Your task to perform on an android device: Go to Yahoo.com Image 0: 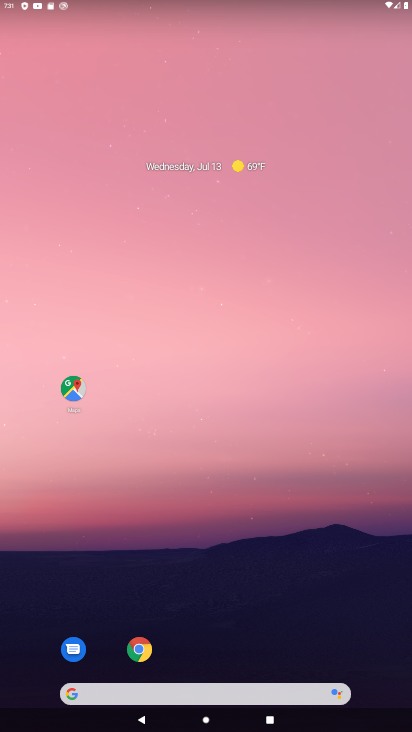
Step 0: click (140, 649)
Your task to perform on an android device: Go to Yahoo.com Image 1: 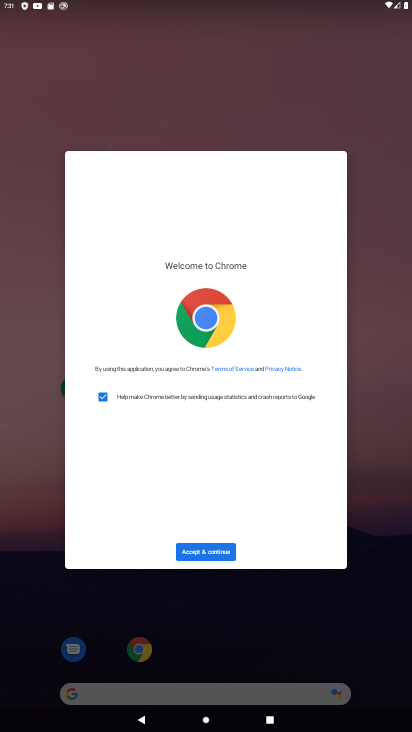
Step 1: click (199, 555)
Your task to perform on an android device: Go to Yahoo.com Image 2: 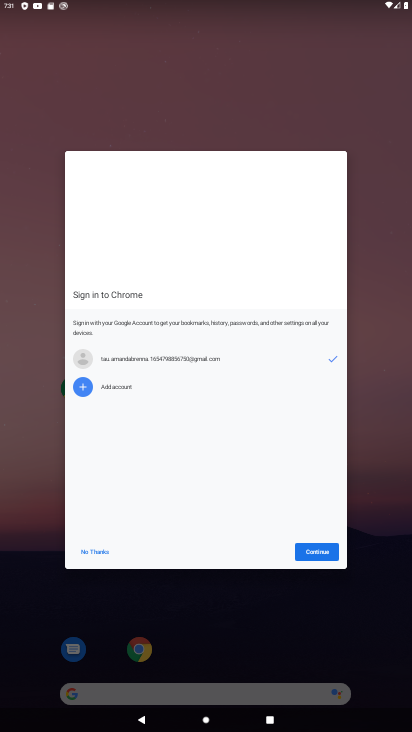
Step 2: click (322, 554)
Your task to perform on an android device: Go to Yahoo.com Image 3: 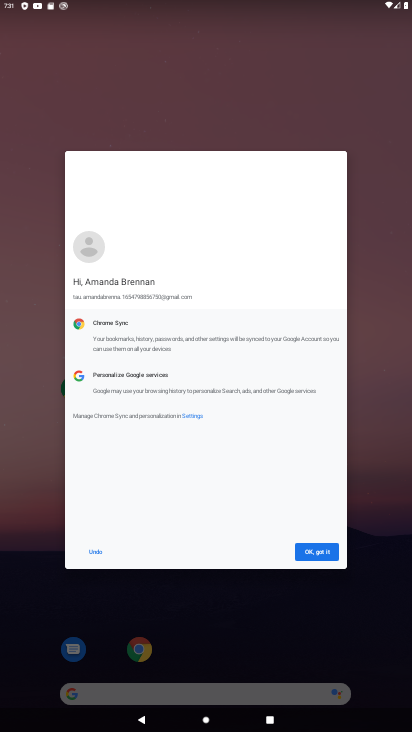
Step 3: click (322, 554)
Your task to perform on an android device: Go to Yahoo.com Image 4: 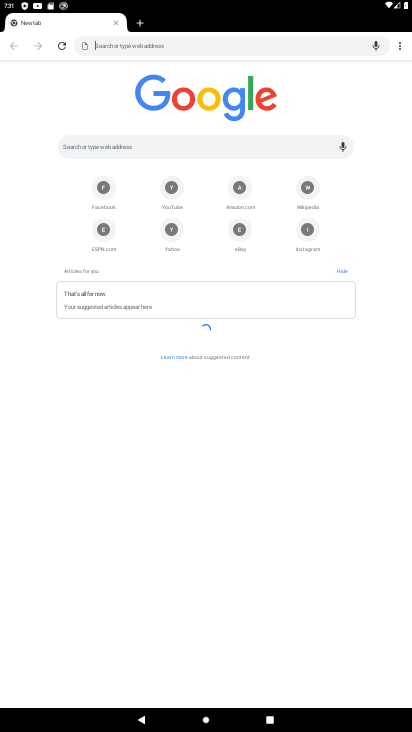
Step 4: click (231, 42)
Your task to perform on an android device: Go to Yahoo.com Image 5: 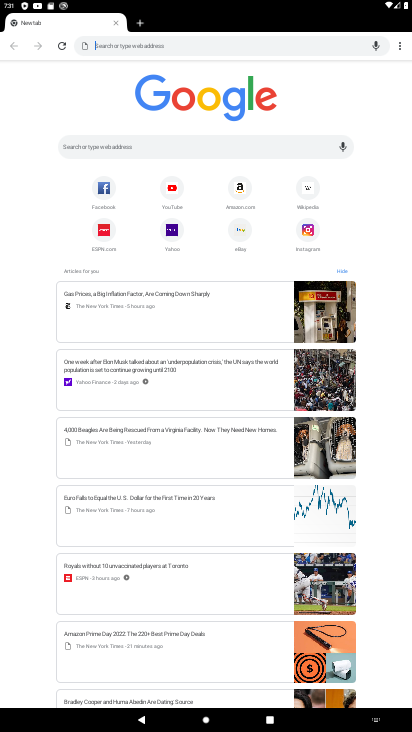
Step 5: type "Yahoo.com"
Your task to perform on an android device: Go to Yahoo.com Image 6: 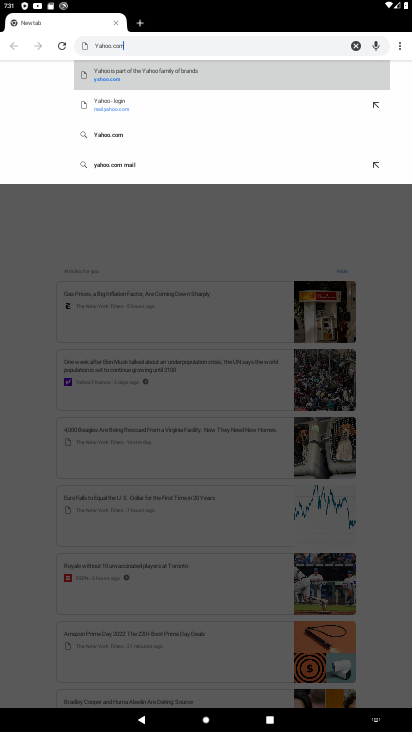
Step 6: type ""
Your task to perform on an android device: Go to Yahoo.com Image 7: 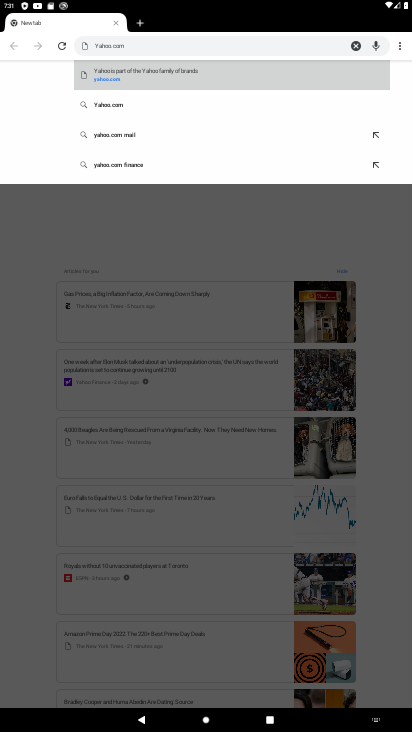
Step 7: click (119, 105)
Your task to perform on an android device: Go to Yahoo.com Image 8: 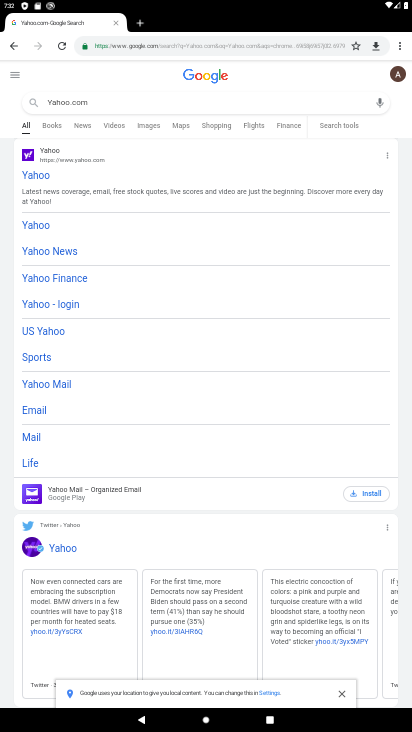
Step 8: click (56, 181)
Your task to perform on an android device: Go to Yahoo.com Image 9: 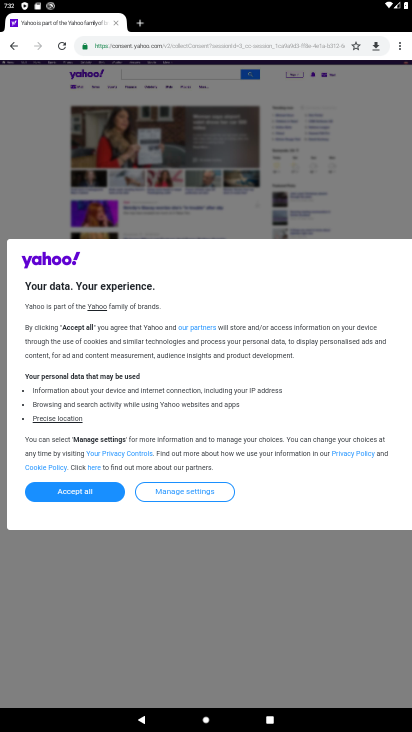
Step 9: click (100, 498)
Your task to perform on an android device: Go to Yahoo.com Image 10: 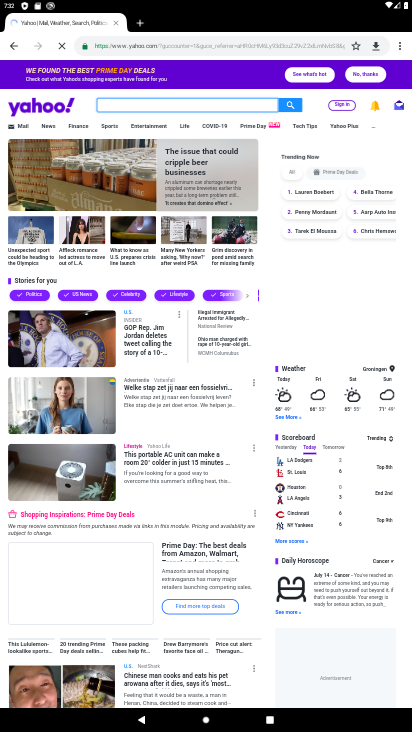
Step 10: task complete